Your task to perform on an android device: visit the assistant section in the google photos Image 0: 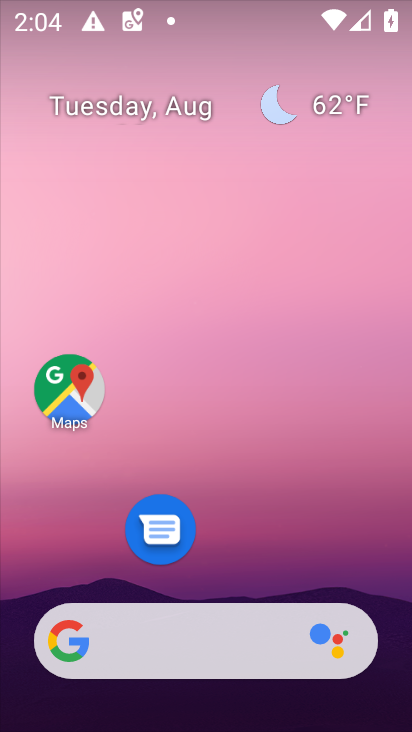
Step 0: drag from (275, 597) to (213, 155)
Your task to perform on an android device: visit the assistant section in the google photos Image 1: 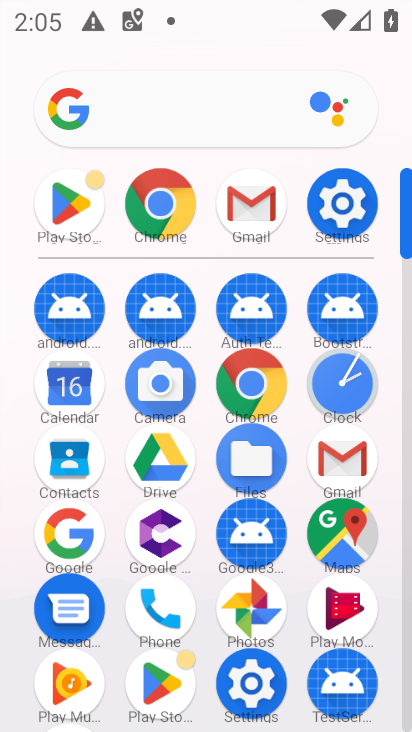
Step 1: click (260, 602)
Your task to perform on an android device: visit the assistant section in the google photos Image 2: 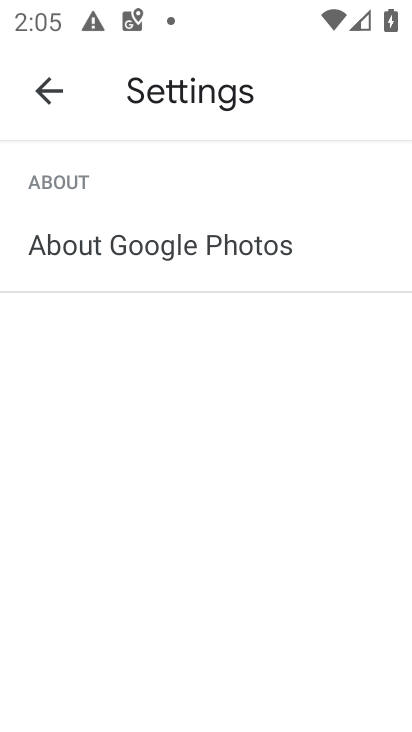
Step 2: click (64, 95)
Your task to perform on an android device: visit the assistant section in the google photos Image 3: 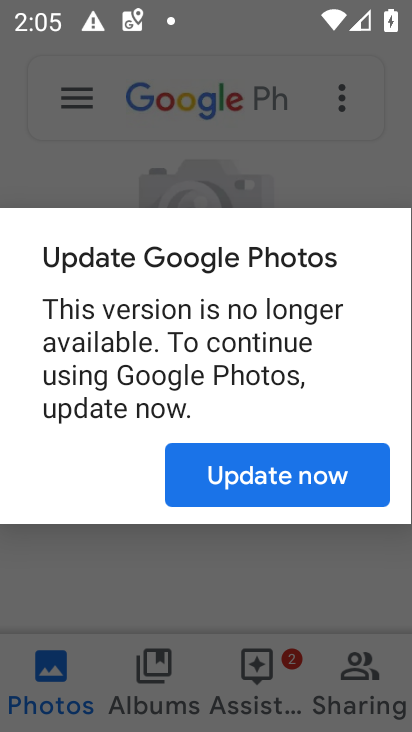
Step 3: click (213, 497)
Your task to perform on an android device: visit the assistant section in the google photos Image 4: 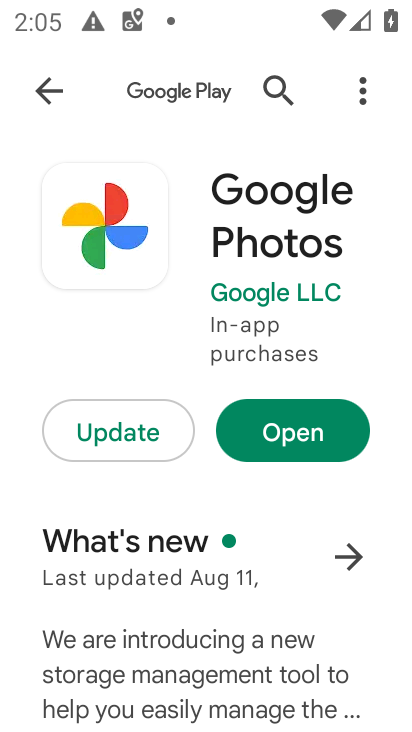
Step 4: click (162, 429)
Your task to perform on an android device: visit the assistant section in the google photos Image 5: 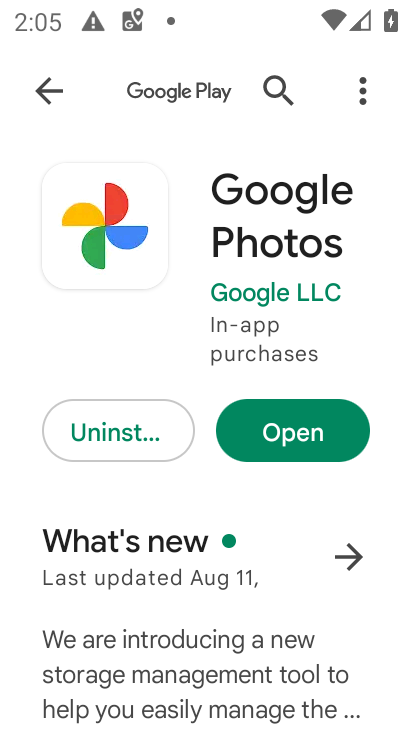
Step 5: click (291, 448)
Your task to perform on an android device: visit the assistant section in the google photos Image 6: 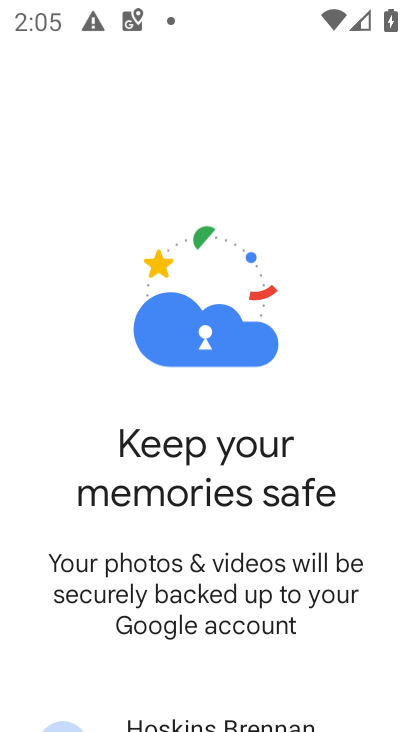
Step 6: drag from (311, 619) to (314, 513)
Your task to perform on an android device: visit the assistant section in the google photos Image 7: 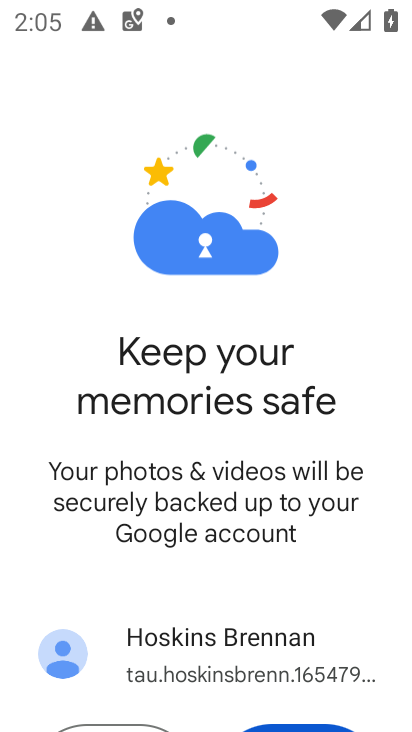
Step 7: drag from (317, 624) to (321, 515)
Your task to perform on an android device: visit the assistant section in the google photos Image 8: 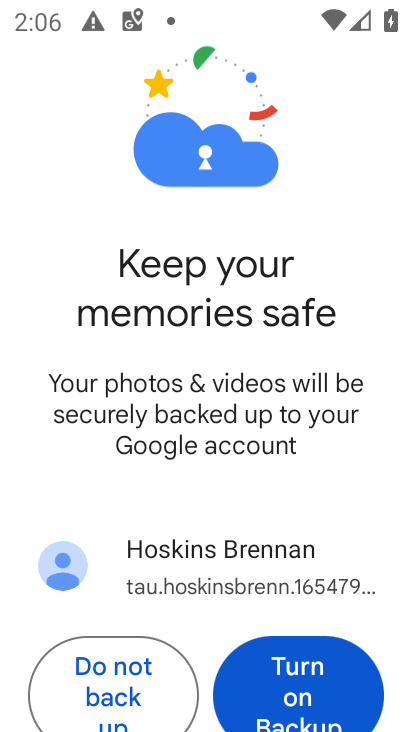
Step 8: click (321, 515)
Your task to perform on an android device: visit the assistant section in the google photos Image 9: 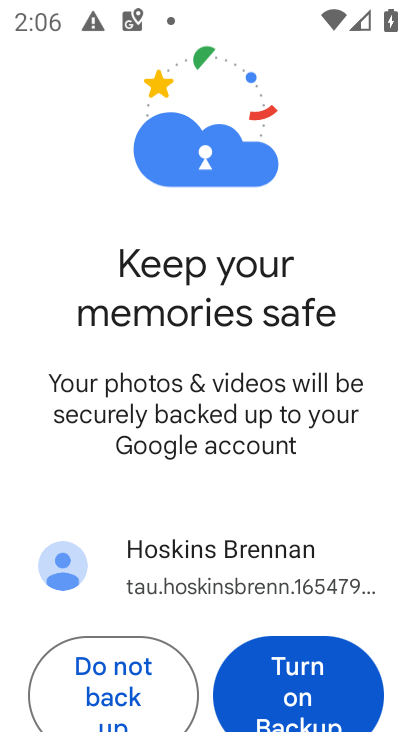
Step 9: click (122, 658)
Your task to perform on an android device: visit the assistant section in the google photos Image 10: 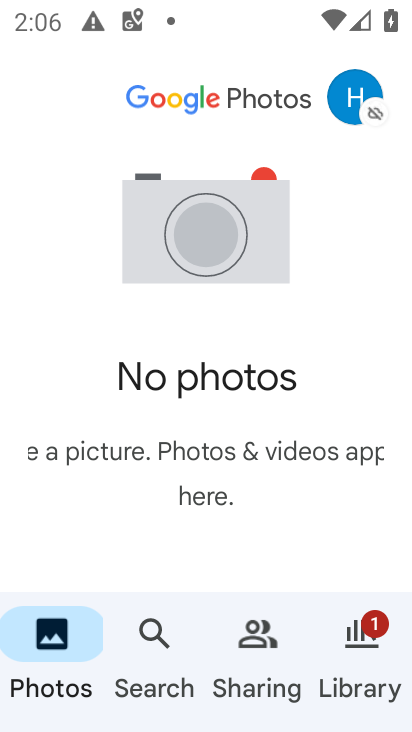
Step 10: click (122, 658)
Your task to perform on an android device: visit the assistant section in the google photos Image 11: 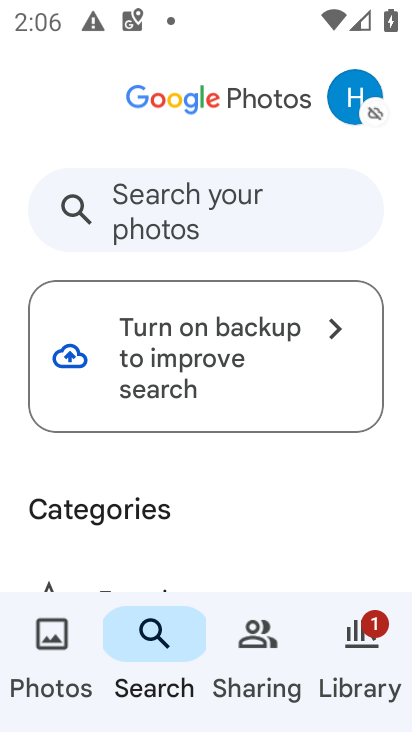
Step 11: task complete